Your task to perform on an android device: Search for "razer blade" on bestbuy.com, select the first entry, add it to the cart, then select checkout. Image 0: 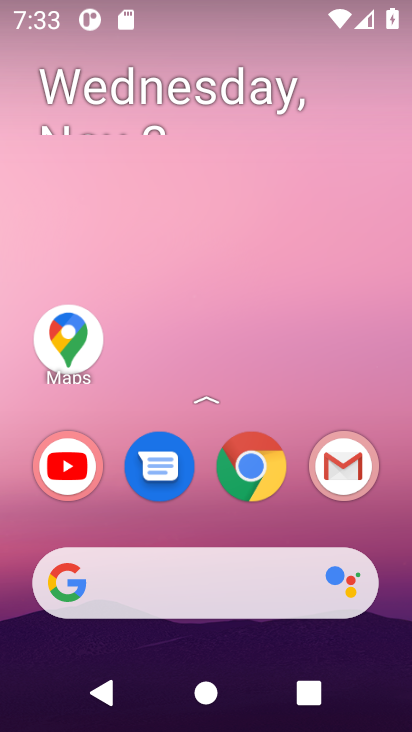
Step 0: drag from (201, 386) to (234, 156)
Your task to perform on an android device: Search for "razer blade" on bestbuy.com, select the first entry, add it to the cart, then select checkout. Image 1: 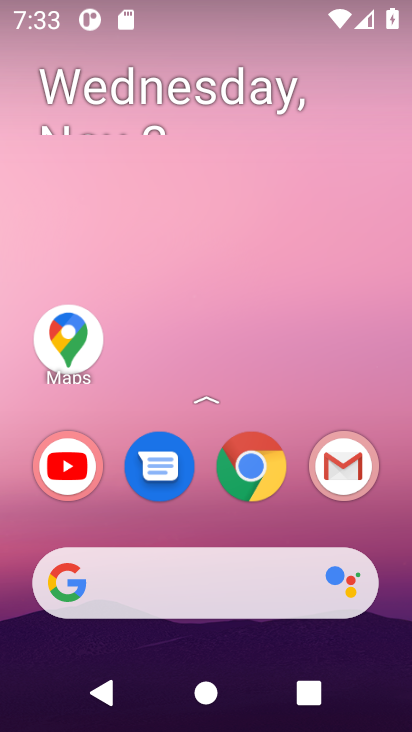
Step 1: click (196, 585)
Your task to perform on an android device: Search for "razer blade" on bestbuy.com, select the first entry, add it to the cart, then select checkout. Image 2: 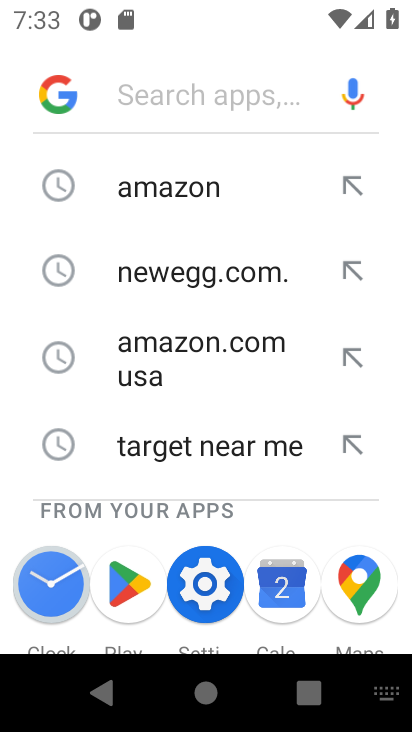
Step 2: type "bestbuy.com"
Your task to perform on an android device: Search for "razer blade" on bestbuy.com, select the first entry, add it to the cart, then select checkout. Image 3: 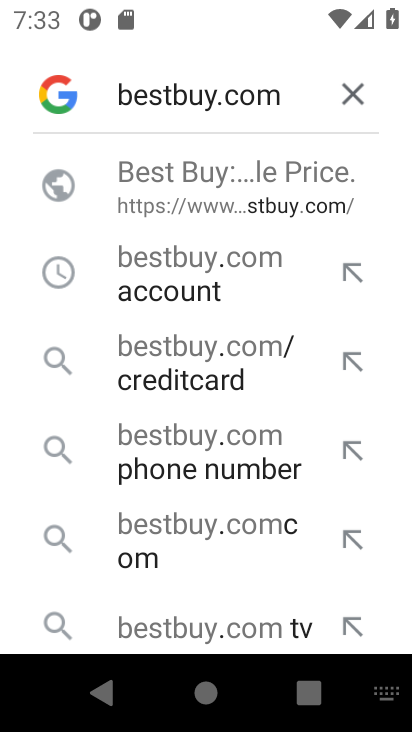
Step 3: type ""
Your task to perform on an android device: Search for "razer blade" on bestbuy.com, select the first entry, add it to the cart, then select checkout. Image 4: 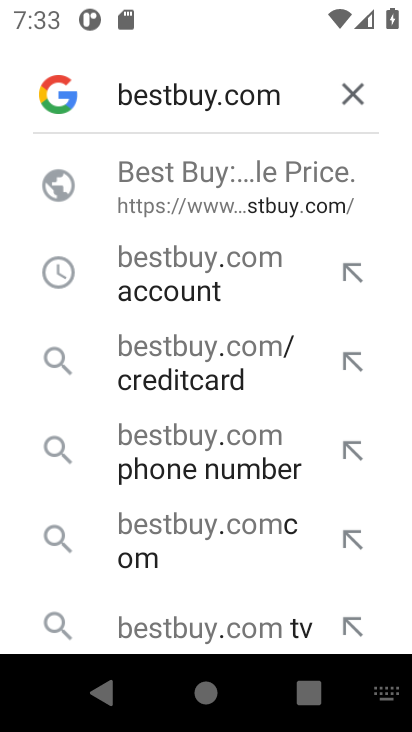
Step 4: click (230, 158)
Your task to perform on an android device: Search for "razer blade" on bestbuy.com, select the first entry, add it to the cart, then select checkout. Image 5: 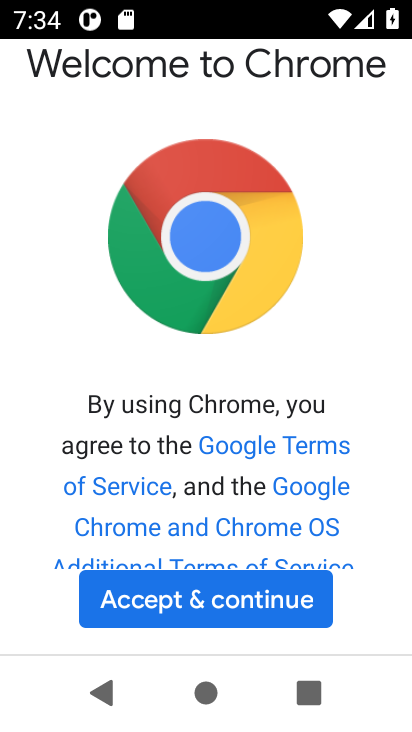
Step 5: click (193, 586)
Your task to perform on an android device: Search for "razer blade" on bestbuy.com, select the first entry, add it to the cart, then select checkout. Image 6: 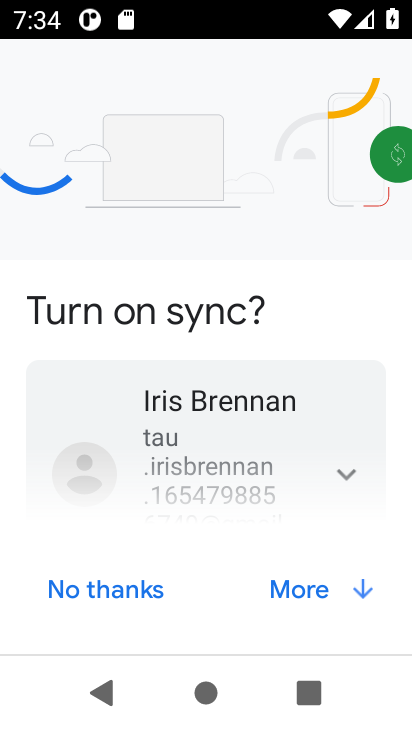
Step 6: click (300, 591)
Your task to perform on an android device: Search for "razer blade" on bestbuy.com, select the first entry, add it to the cart, then select checkout. Image 7: 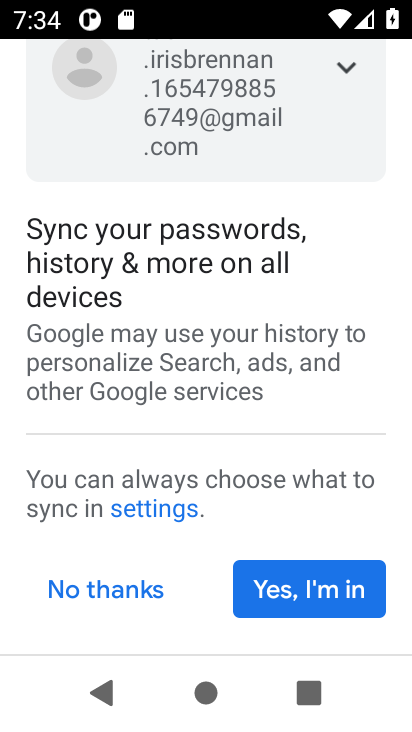
Step 7: click (295, 596)
Your task to perform on an android device: Search for "razer blade" on bestbuy.com, select the first entry, add it to the cart, then select checkout. Image 8: 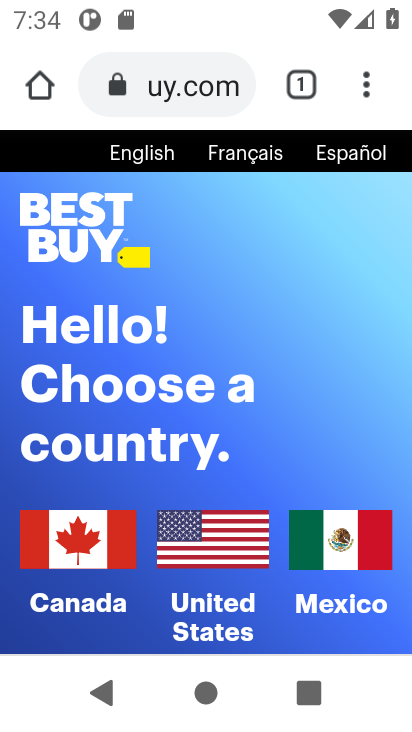
Step 8: click (202, 518)
Your task to perform on an android device: Search for "razer blade" on bestbuy.com, select the first entry, add it to the cart, then select checkout. Image 9: 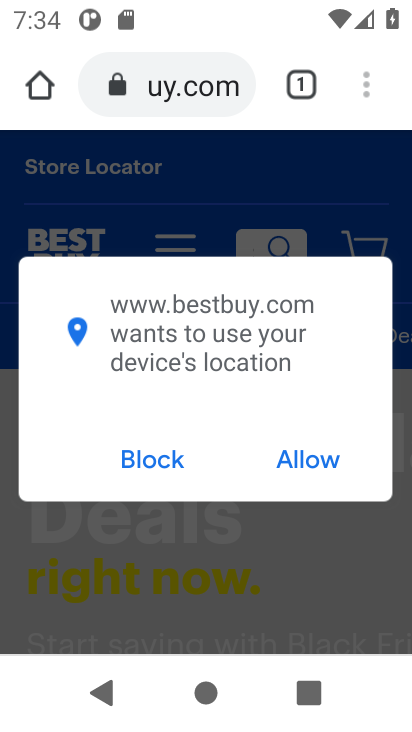
Step 9: click (266, 449)
Your task to perform on an android device: Search for "razer blade" on bestbuy.com, select the first entry, add it to the cart, then select checkout. Image 10: 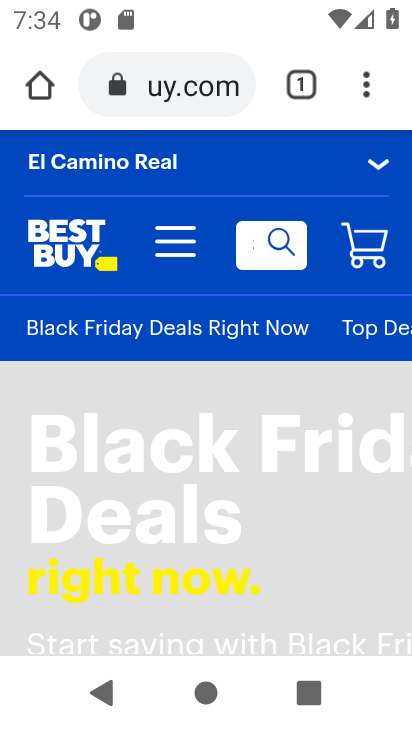
Step 10: click (282, 239)
Your task to perform on an android device: Search for "razer blade" on bestbuy.com, select the first entry, add it to the cart, then select checkout. Image 11: 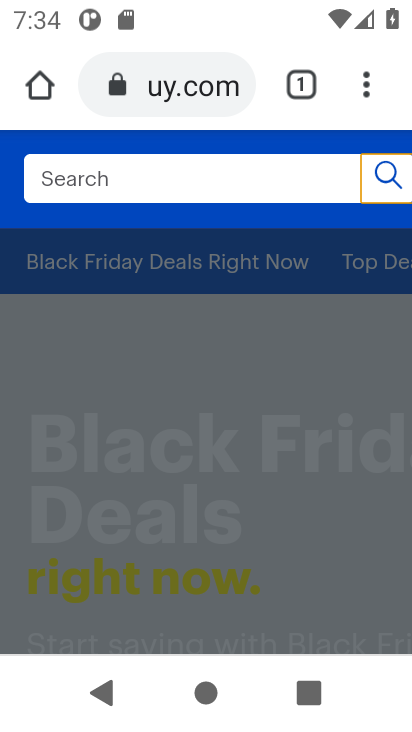
Step 11: click (229, 184)
Your task to perform on an android device: Search for "razer blade" on bestbuy.com, select the first entry, add it to the cart, then select checkout. Image 12: 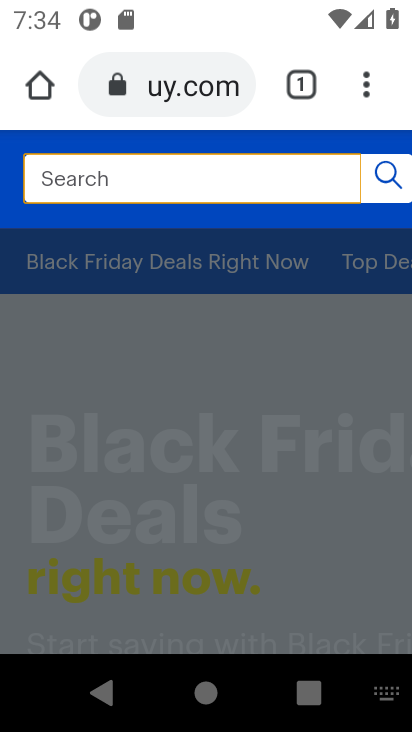
Step 12: type "razer blade"
Your task to perform on an android device: Search for "razer blade" on bestbuy.com, select the first entry, add it to the cart, then select checkout. Image 13: 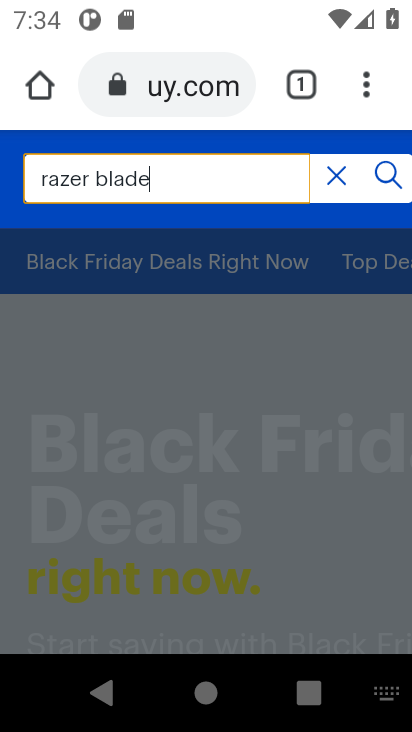
Step 13: type ""
Your task to perform on an android device: Search for "razer blade" on bestbuy.com, select the first entry, add it to the cart, then select checkout. Image 14: 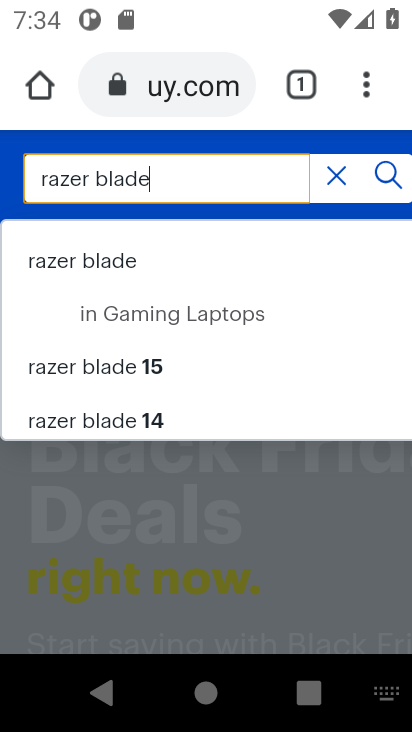
Step 14: click (143, 268)
Your task to perform on an android device: Search for "razer blade" on bestbuy.com, select the first entry, add it to the cart, then select checkout. Image 15: 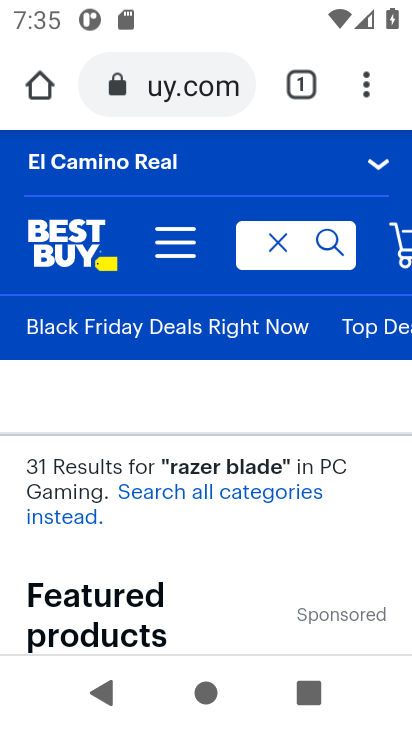
Step 15: drag from (199, 592) to (182, 253)
Your task to perform on an android device: Search for "razer blade" on bestbuy.com, select the first entry, add it to the cart, then select checkout. Image 16: 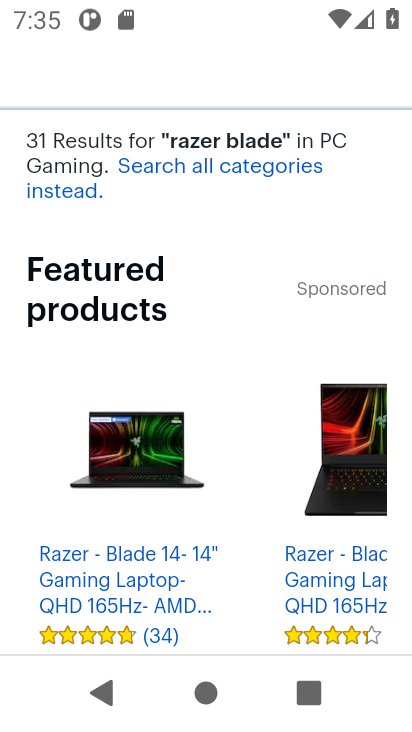
Step 16: click (145, 477)
Your task to perform on an android device: Search for "razer blade" on bestbuy.com, select the first entry, add it to the cart, then select checkout. Image 17: 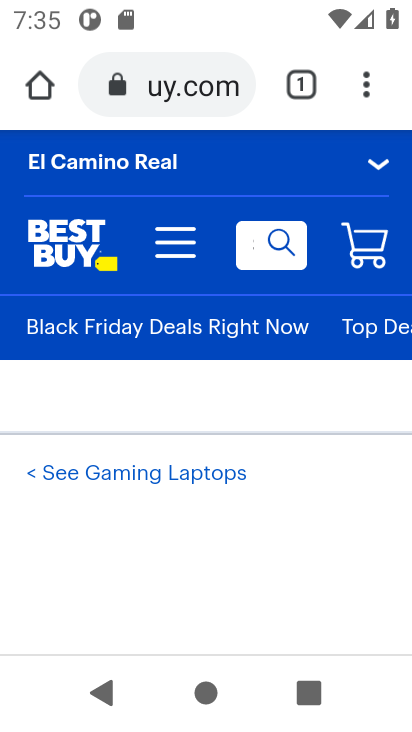
Step 17: drag from (191, 583) to (210, 258)
Your task to perform on an android device: Search for "razer blade" on bestbuy.com, select the first entry, add it to the cart, then select checkout. Image 18: 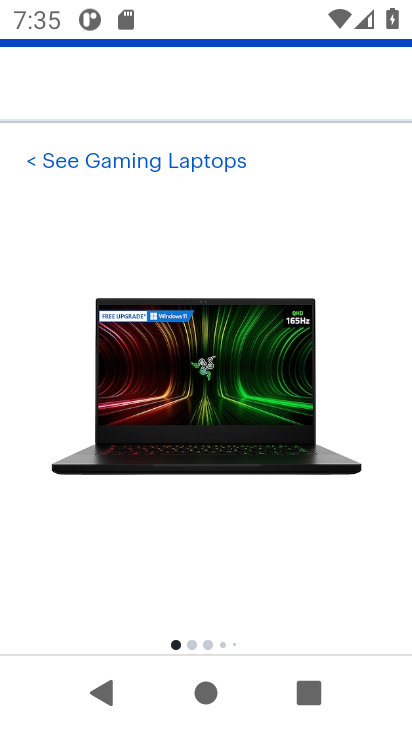
Step 18: drag from (279, 549) to (305, 229)
Your task to perform on an android device: Search for "razer blade" on bestbuy.com, select the first entry, add it to the cart, then select checkout. Image 19: 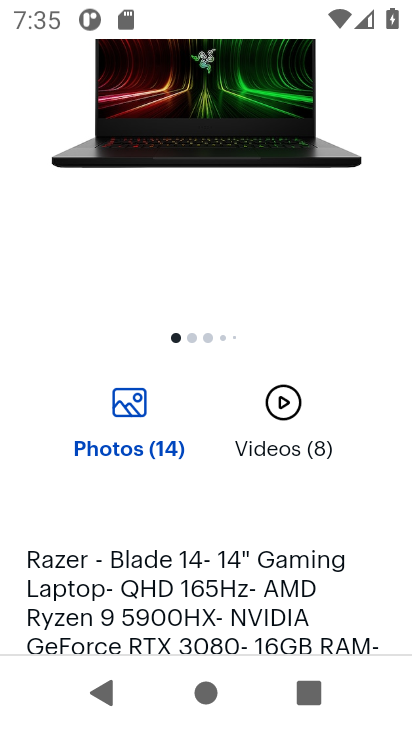
Step 19: drag from (327, 540) to (331, 91)
Your task to perform on an android device: Search for "razer blade" on bestbuy.com, select the first entry, add it to the cart, then select checkout. Image 20: 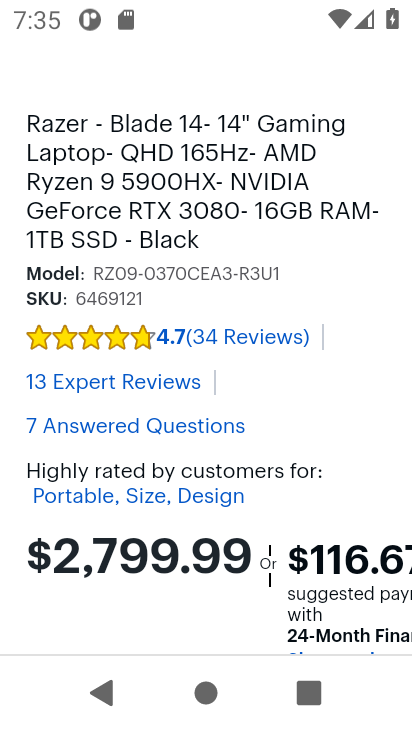
Step 20: drag from (273, 408) to (280, 277)
Your task to perform on an android device: Search for "razer blade" on bestbuy.com, select the first entry, add it to the cart, then select checkout. Image 21: 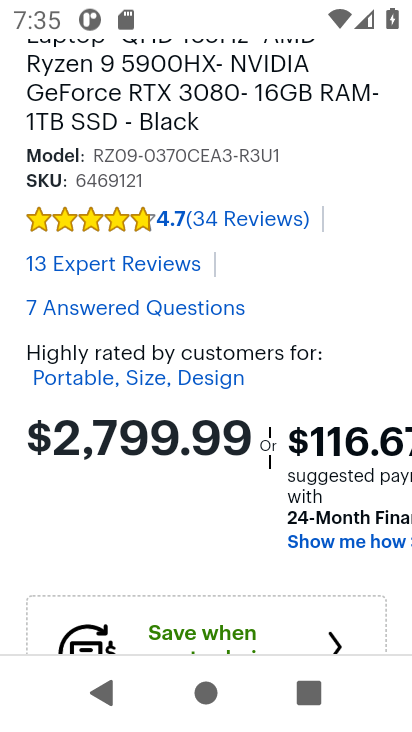
Step 21: drag from (234, 545) to (260, 112)
Your task to perform on an android device: Search for "razer blade" on bestbuy.com, select the first entry, add it to the cart, then select checkout. Image 22: 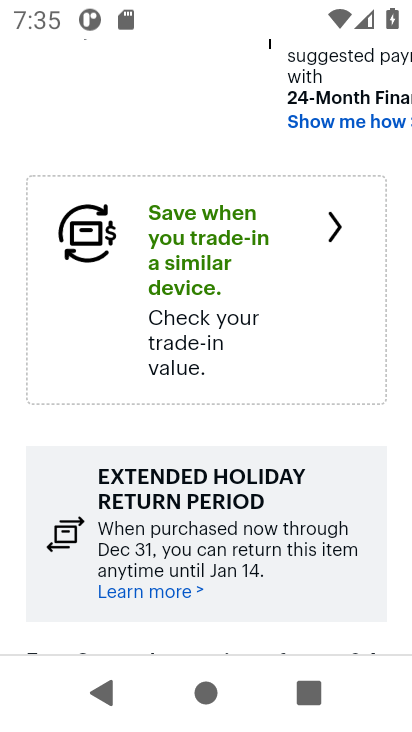
Step 22: drag from (283, 444) to (286, 73)
Your task to perform on an android device: Search for "razer blade" on bestbuy.com, select the first entry, add it to the cart, then select checkout. Image 23: 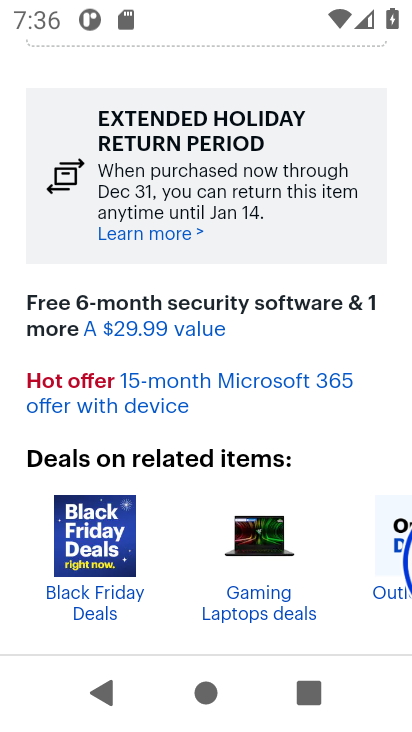
Step 23: drag from (302, 499) to (338, 116)
Your task to perform on an android device: Search for "razer blade" on bestbuy.com, select the first entry, add it to the cart, then select checkout. Image 24: 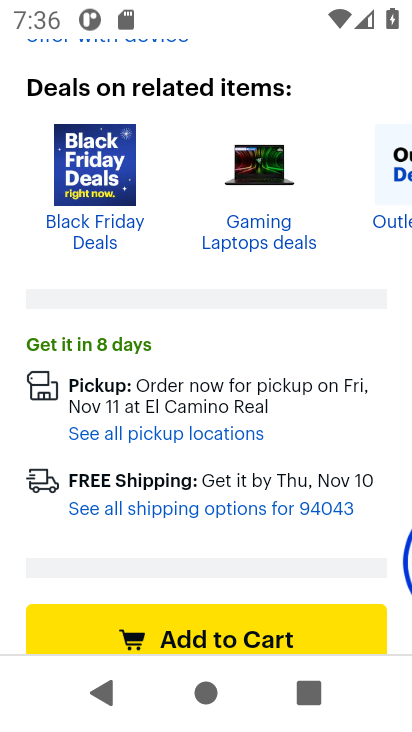
Step 24: drag from (342, 493) to (361, 238)
Your task to perform on an android device: Search for "razer blade" on bestbuy.com, select the first entry, add it to the cart, then select checkout. Image 25: 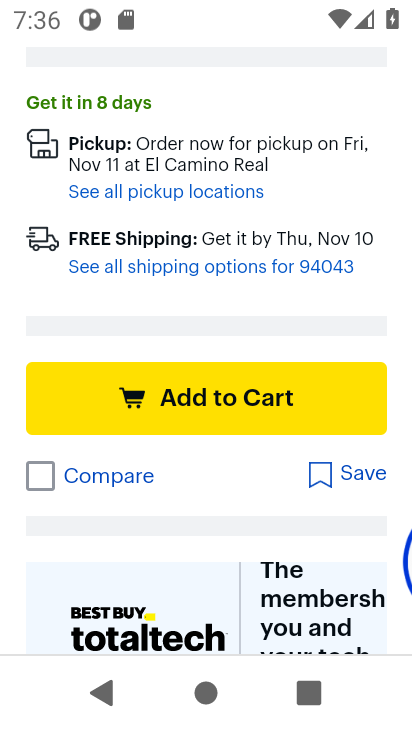
Step 25: click (280, 382)
Your task to perform on an android device: Search for "razer blade" on bestbuy.com, select the first entry, add it to the cart, then select checkout. Image 26: 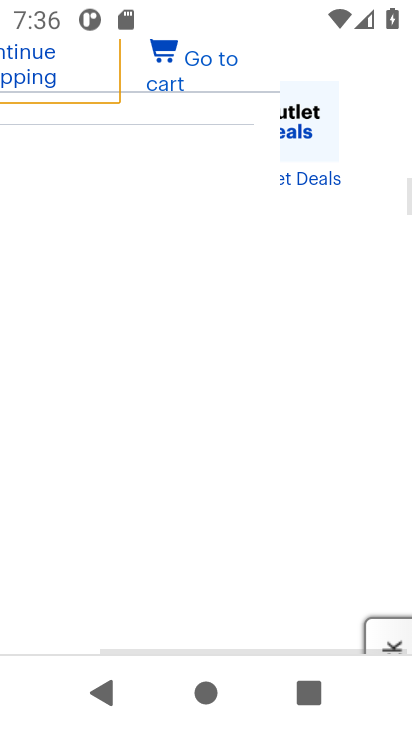
Step 26: drag from (266, 205) to (256, 636)
Your task to perform on an android device: Search for "razer blade" on bestbuy.com, select the first entry, add it to the cart, then select checkout. Image 27: 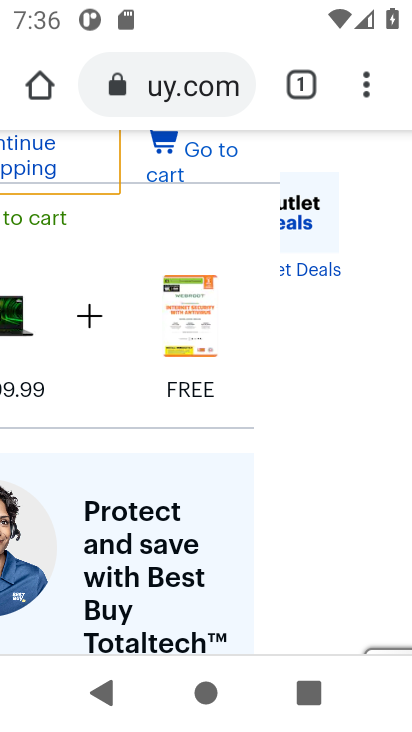
Step 27: drag from (292, 315) to (322, 443)
Your task to perform on an android device: Search for "razer blade" on bestbuy.com, select the first entry, add it to the cart, then select checkout. Image 28: 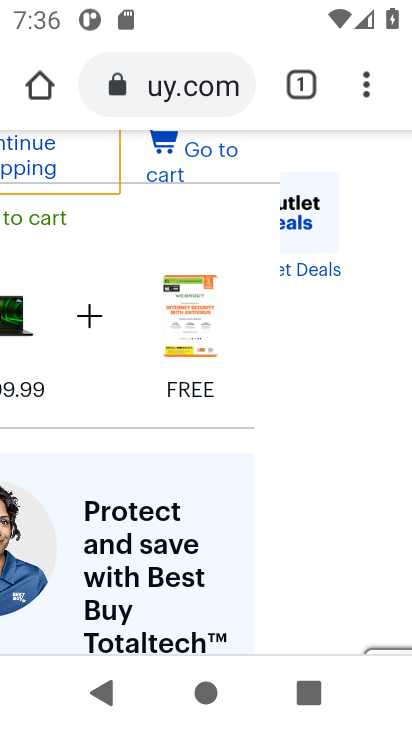
Step 28: drag from (264, 234) to (326, 558)
Your task to perform on an android device: Search for "razer blade" on bestbuy.com, select the first entry, add it to the cart, then select checkout. Image 29: 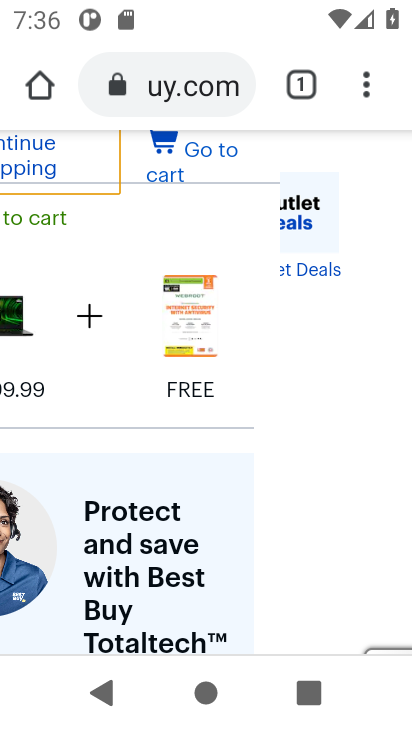
Step 29: click (149, 131)
Your task to perform on an android device: Search for "razer blade" on bestbuy.com, select the first entry, add it to the cart, then select checkout. Image 30: 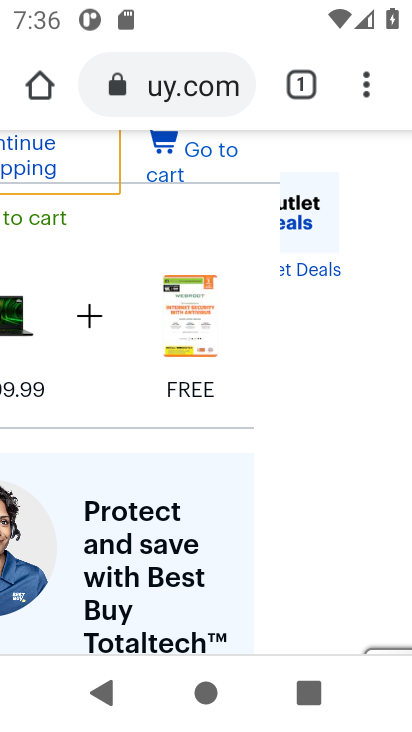
Step 30: click (177, 160)
Your task to perform on an android device: Search for "razer blade" on bestbuy.com, select the first entry, add it to the cart, then select checkout. Image 31: 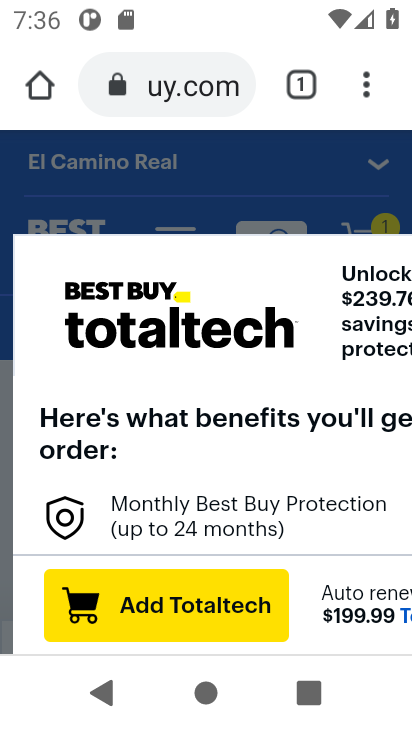
Step 31: click (373, 200)
Your task to perform on an android device: Search for "razer blade" on bestbuy.com, select the first entry, add it to the cart, then select checkout. Image 32: 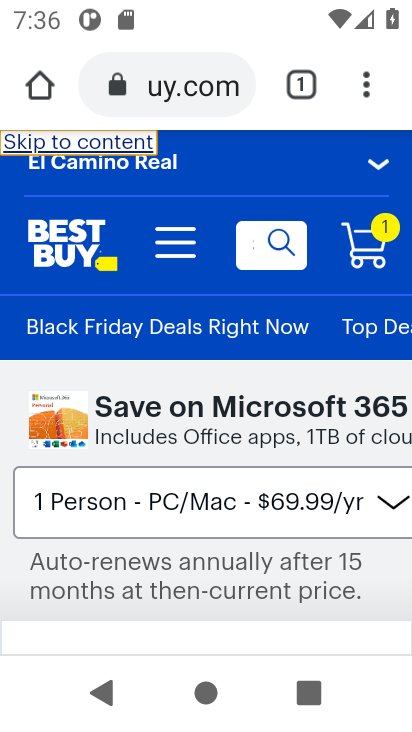
Step 32: click (376, 236)
Your task to perform on an android device: Search for "razer blade" on bestbuy.com, select the first entry, add it to the cart, then select checkout. Image 33: 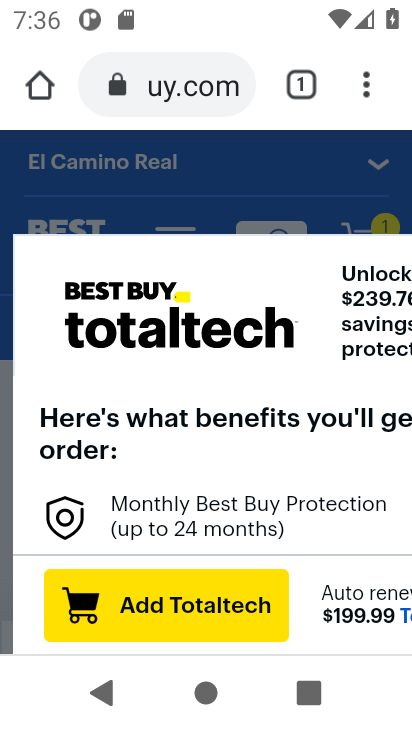
Step 33: task complete